Your task to perform on an android device: toggle priority inbox in the gmail app Image 0: 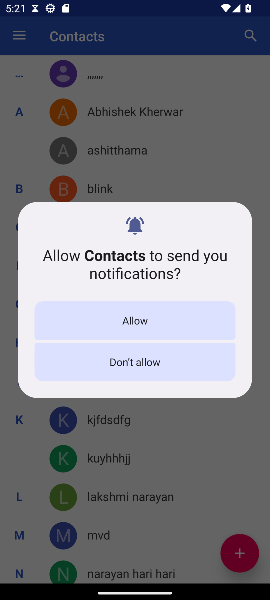
Step 0: press home button
Your task to perform on an android device: toggle priority inbox in the gmail app Image 1: 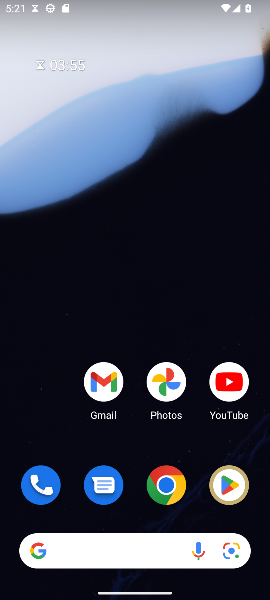
Step 1: drag from (129, 460) to (140, 4)
Your task to perform on an android device: toggle priority inbox in the gmail app Image 2: 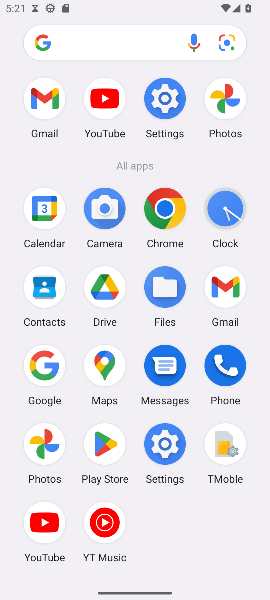
Step 2: click (222, 304)
Your task to perform on an android device: toggle priority inbox in the gmail app Image 3: 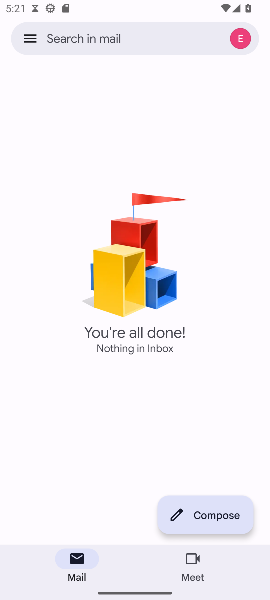
Step 3: click (30, 41)
Your task to perform on an android device: toggle priority inbox in the gmail app Image 4: 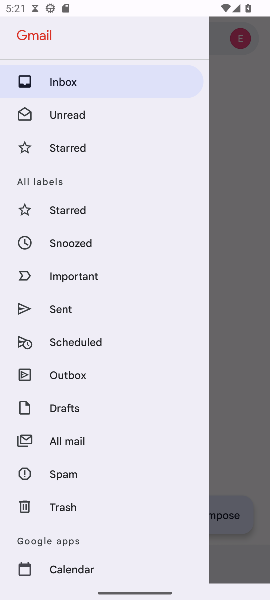
Step 4: drag from (68, 406) to (67, 219)
Your task to perform on an android device: toggle priority inbox in the gmail app Image 5: 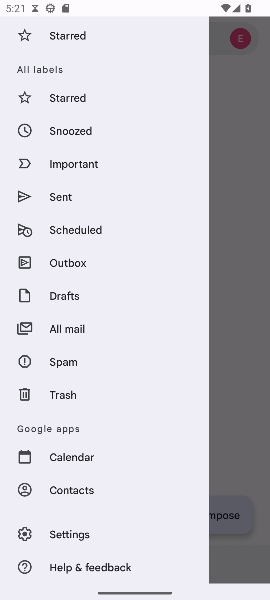
Step 5: click (90, 530)
Your task to perform on an android device: toggle priority inbox in the gmail app Image 6: 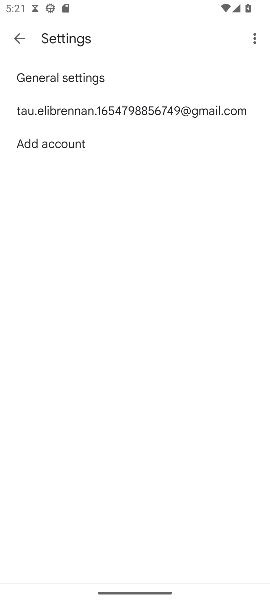
Step 6: click (85, 108)
Your task to perform on an android device: toggle priority inbox in the gmail app Image 7: 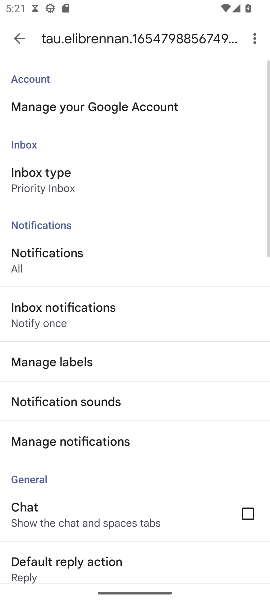
Step 7: click (77, 184)
Your task to perform on an android device: toggle priority inbox in the gmail app Image 8: 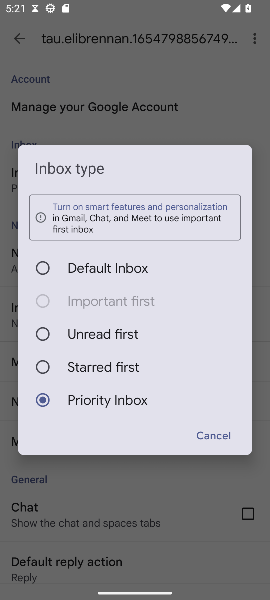
Step 8: click (84, 267)
Your task to perform on an android device: toggle priority inbox in the gmail app Image 9: 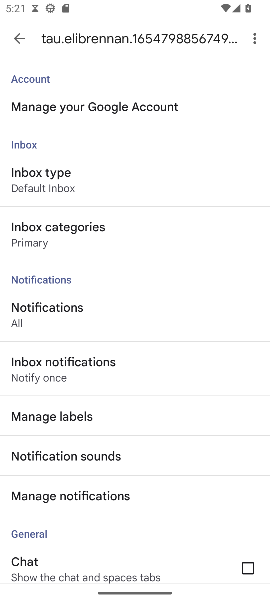
Step 9: task complete